Your task to perform on an android device: Clear the cart on bestbuy.com. Search for "razer blade" on bestbuy.com, select the first entry, add it to the cart, then select checkout. Image 0: 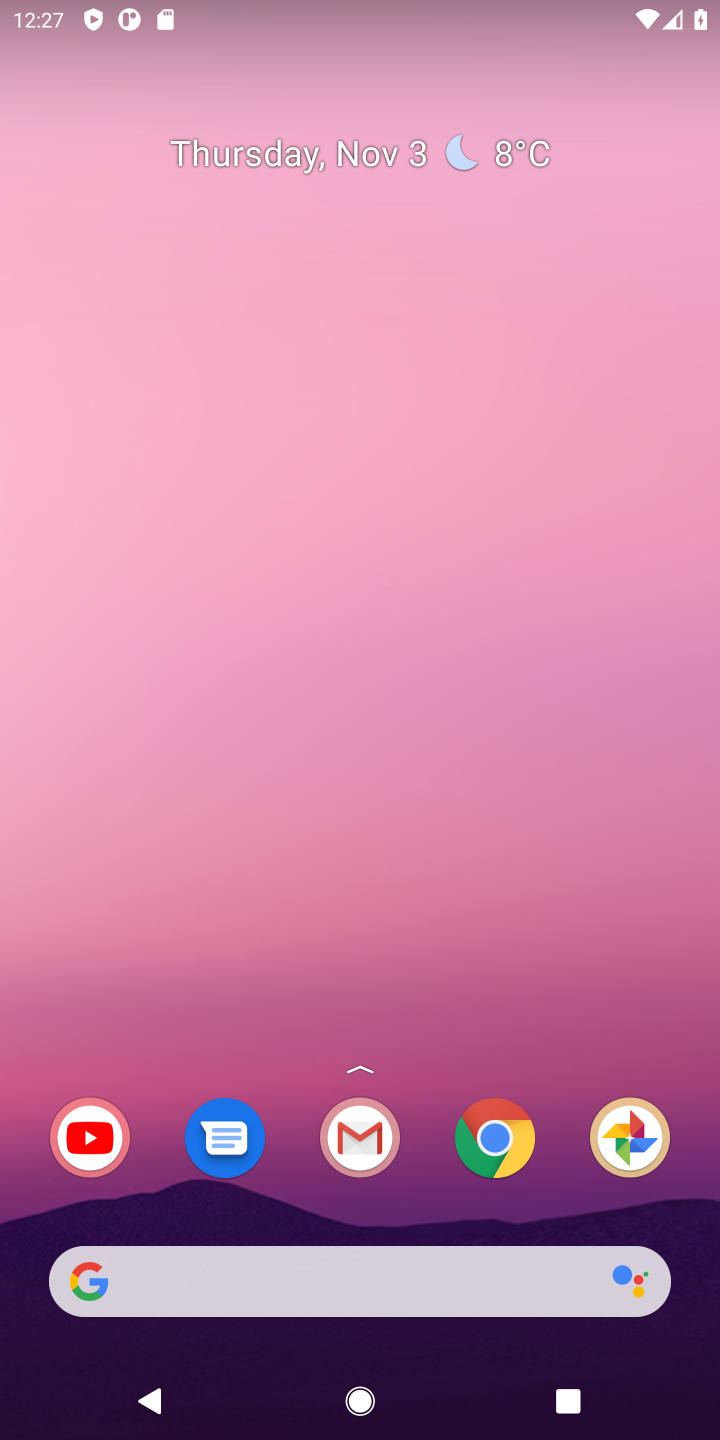
Step 0: click (469, 1153)
Your task to perform on an android device: Clear the cart on bestbuy.com. Search for "razer blade" on bestbuy.com, select the first entry, add it to the cart, then select checkout. Image 1: 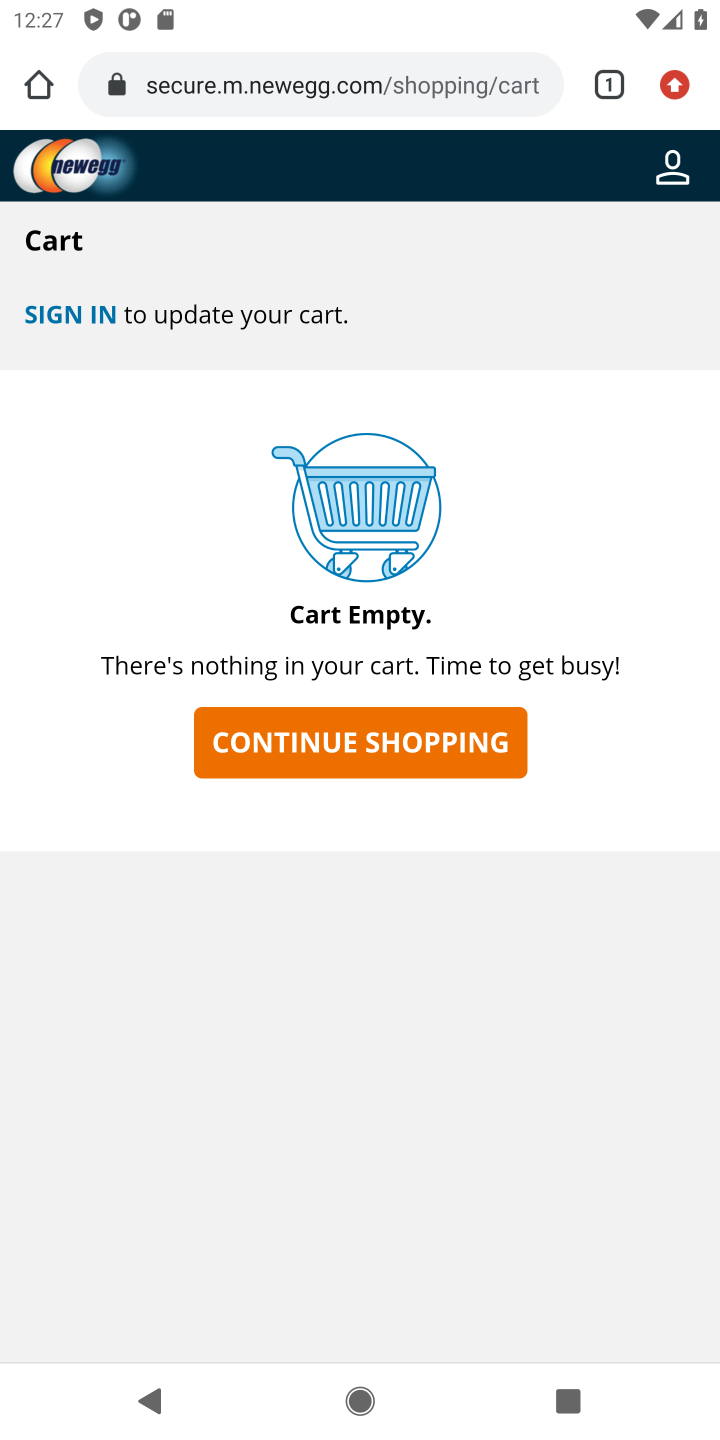
Step 1: click (325, 73)
Your task to perform on an android device: Clear the cart on bestbuy.com. Search for "razer blade" on bestbuy.com, select the first entry, add it to the cart, then select checkout. Image 2: 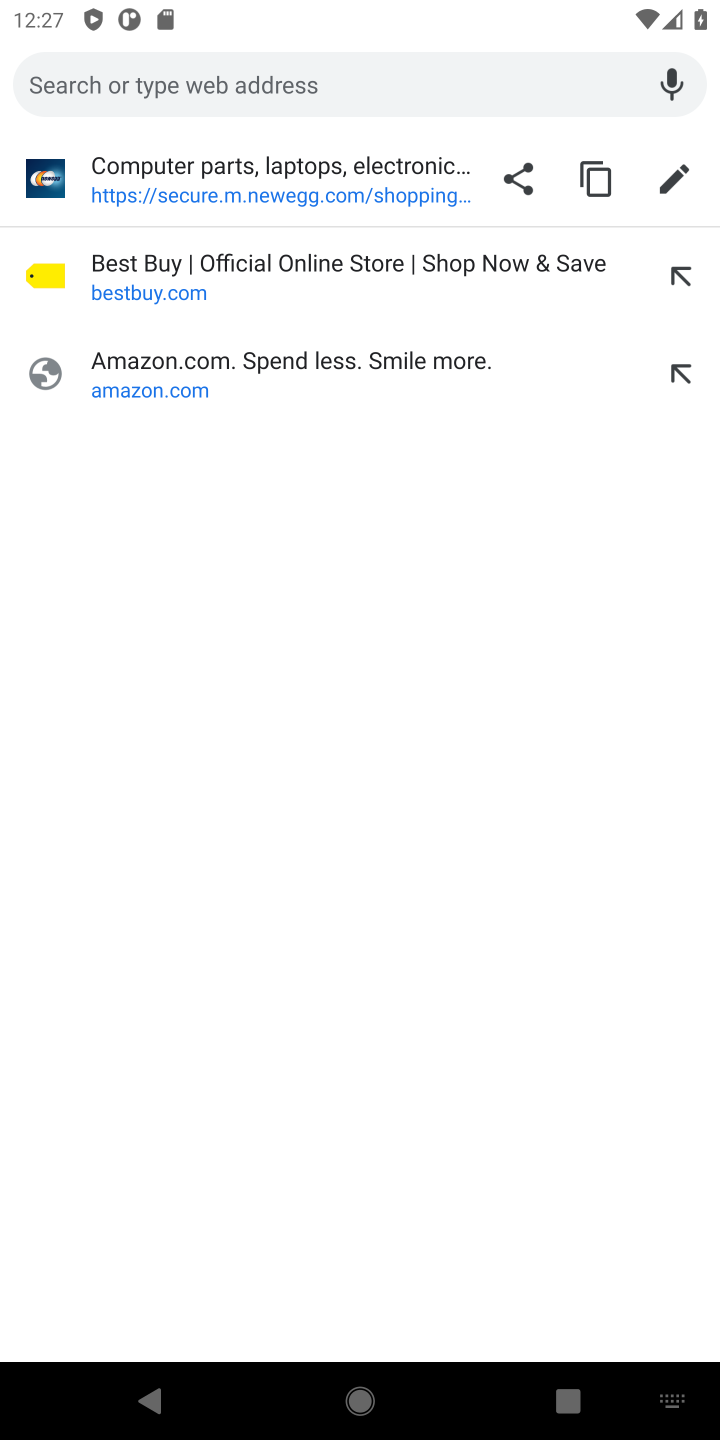
Step 2: click (152, 301)
Your task to perform on an android device: Clear the cart on bestbuy.com. Search for "razer blade" on bestbuy.com, select the first entry, add it to the cart, then select checkout. Image 3: 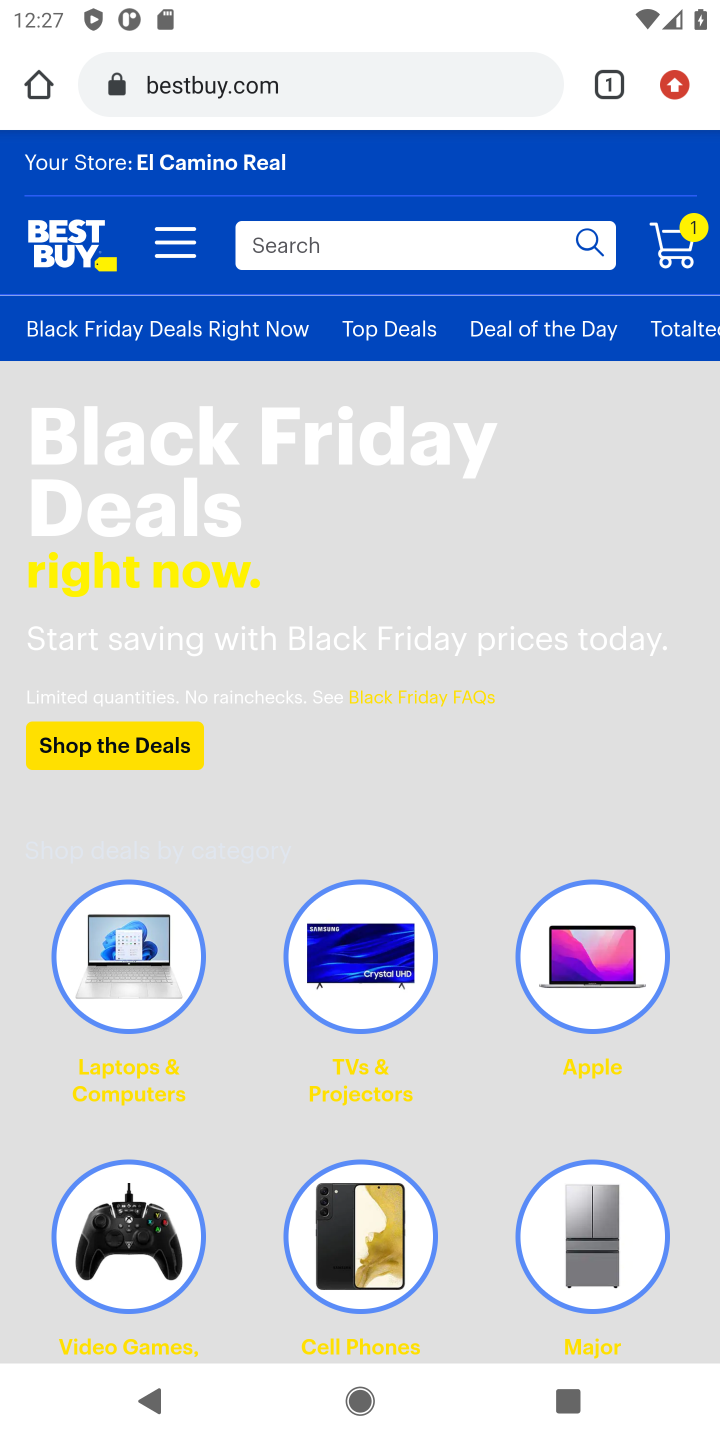
Step 3: click (688, 246)
Your task to perform on an android device: Clear the cart on bestbuy.com. Search for "razer blade" on bestbuy.com, select the first entry, add it to the cart, then select checkout. Image 4: 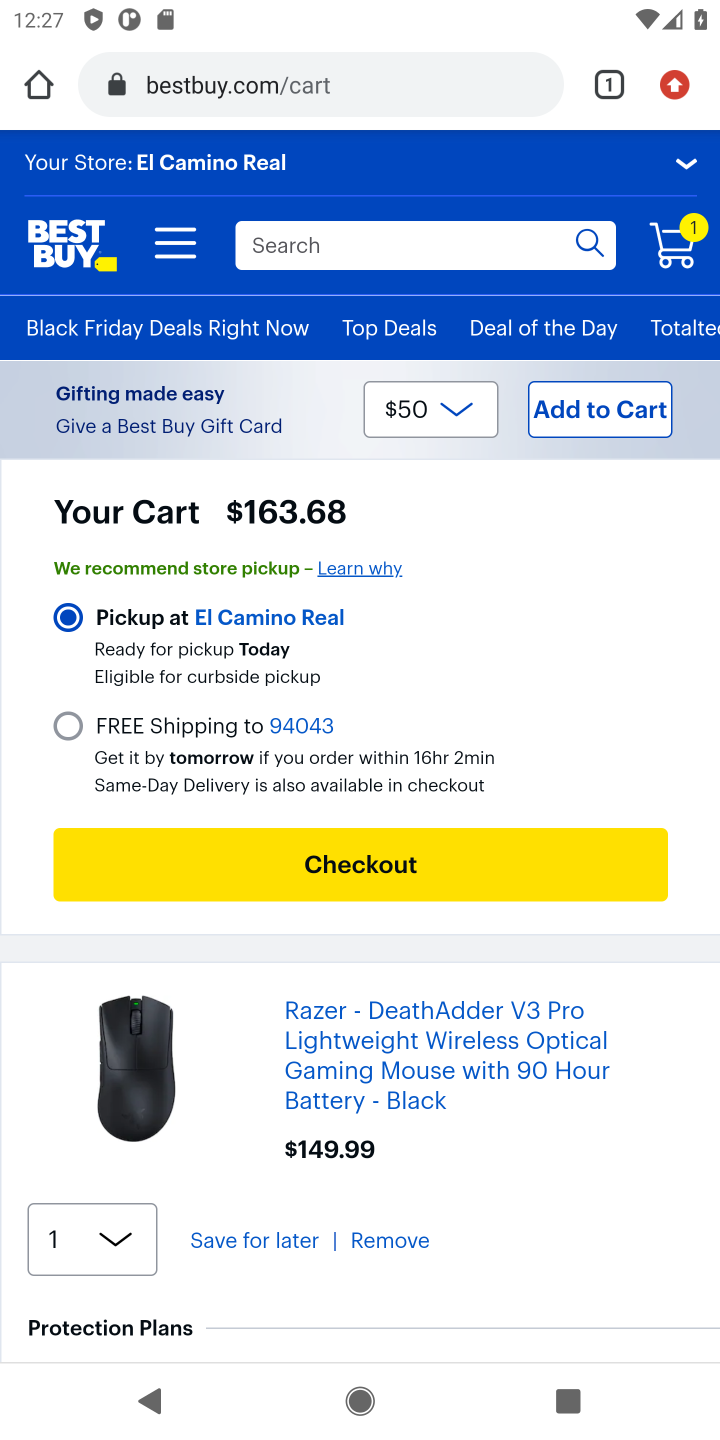
Step 4: click (383, 1234)
Your task to perform on an android device: Clear the cart on bestbuy.com. Search for "razer blade" on bestbuy.com, select the first entry, add it to the cart, then select checkout. Image 5: 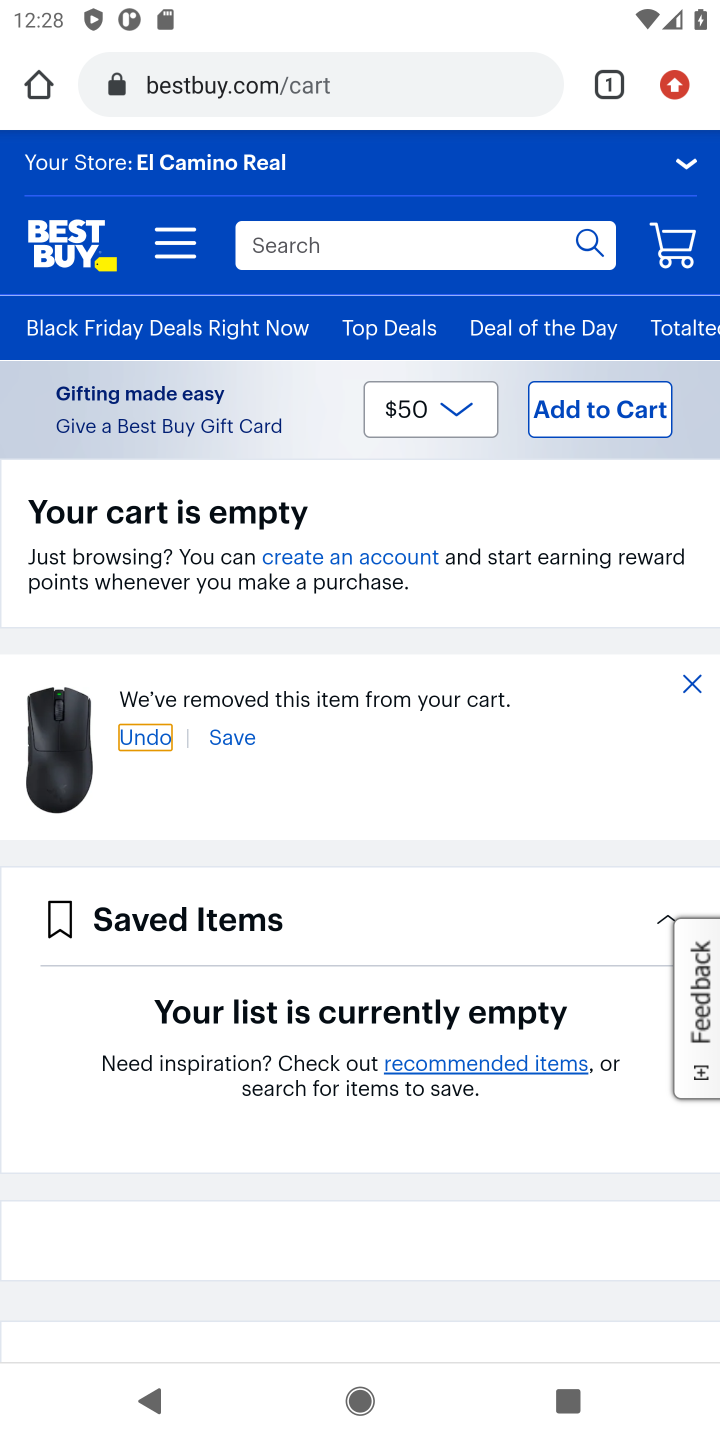
Step 5: click (312, 262)
Your task to perform on an android device: Clear the cart on bestbuy.com. Search for "razer blade" on bestbuy.com, select the first entry, add it to the cart, then select checkout. Image 6: 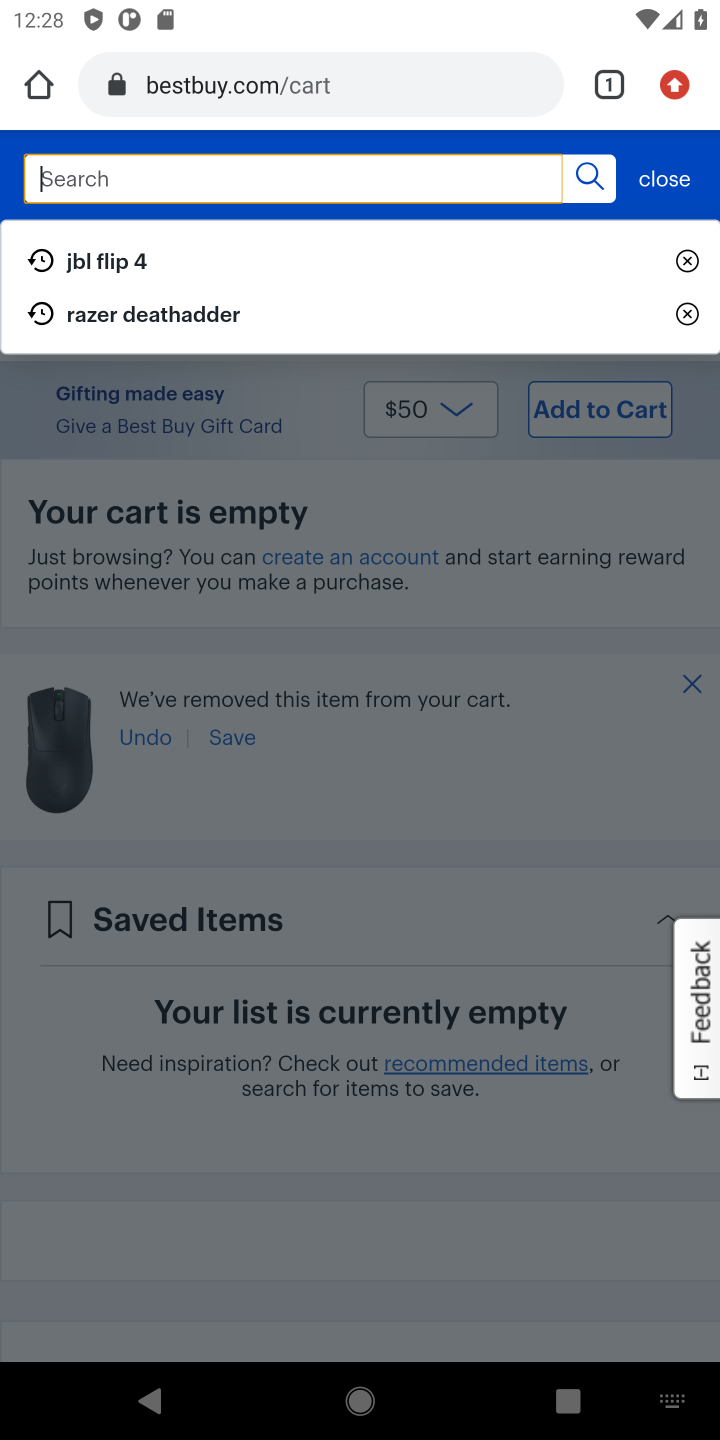
Step 6: type "razer blade"
Your task to perform on an android device: Clear the cart on bestbuy.com. Search for "razer blade" on bestbuy.com, select the first entry, add it to the cart, then select checkout. Image 7: 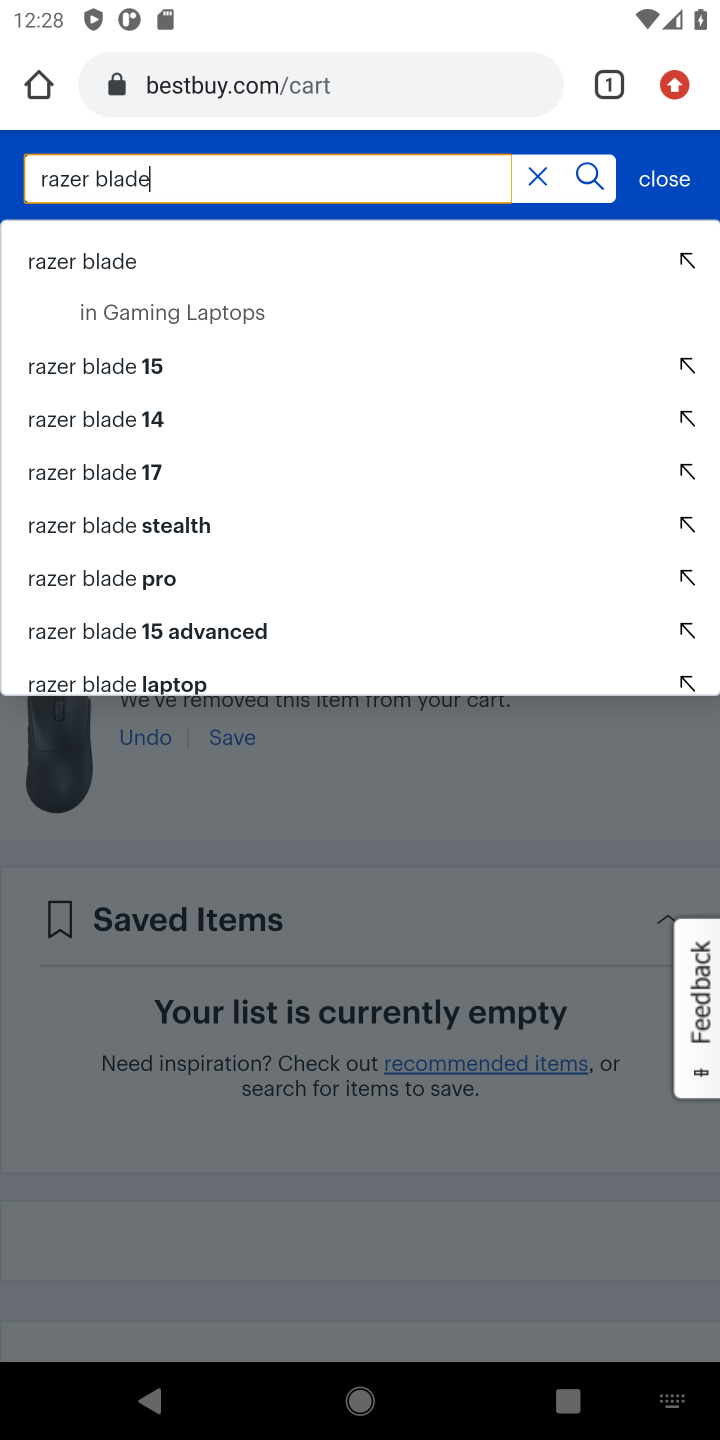
Step 7: click (66, 255)
Your task to perform on an android device: Clear the cart on bestbuy.com. Search for "razer blade" on bestbuy.com, select the first entry, add it to the cart, then select checkout. Image 8: 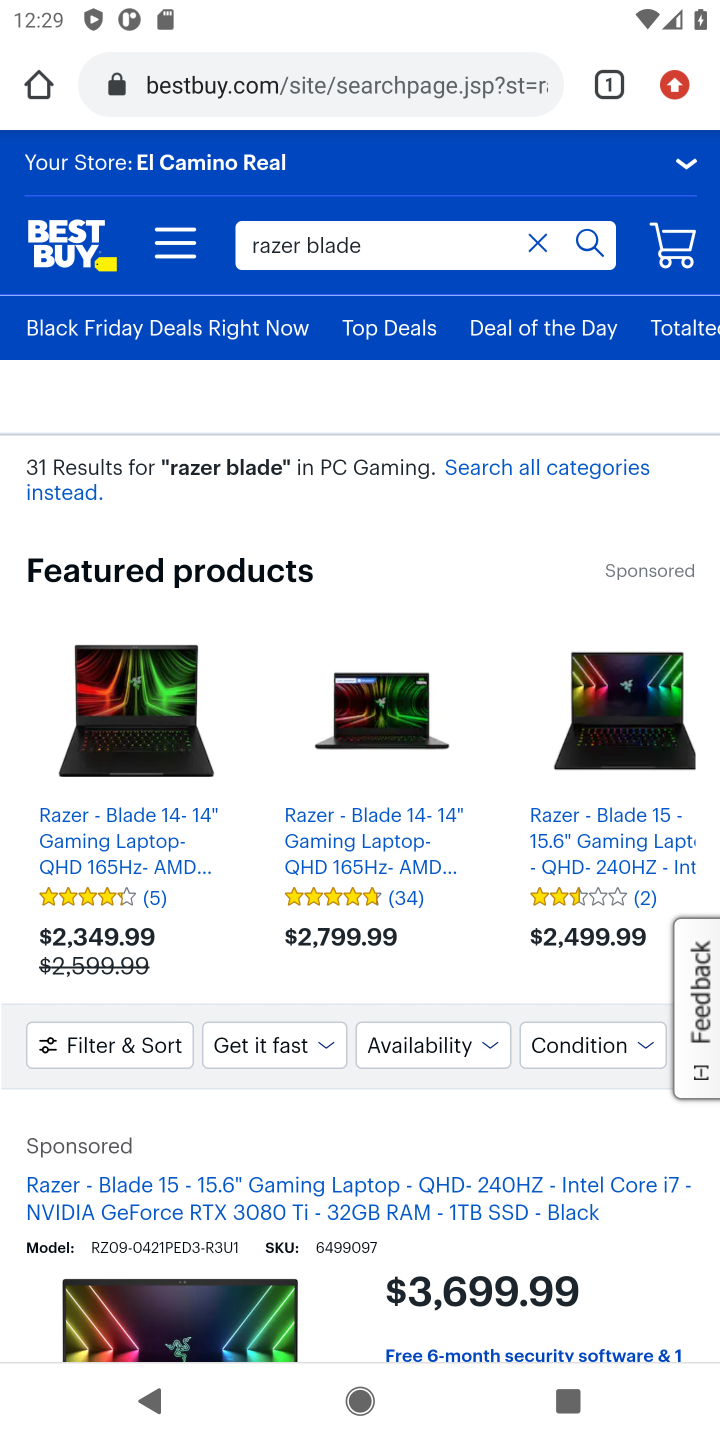
Step 8: drag from (378, 1128) to (434, 360)
Your task to perform on an android device: Clear the cart on bestbuy.com. Search for "razer blade" on bestbuy.com, select the first entry, add it to the cart, then select checkout. Image 9: 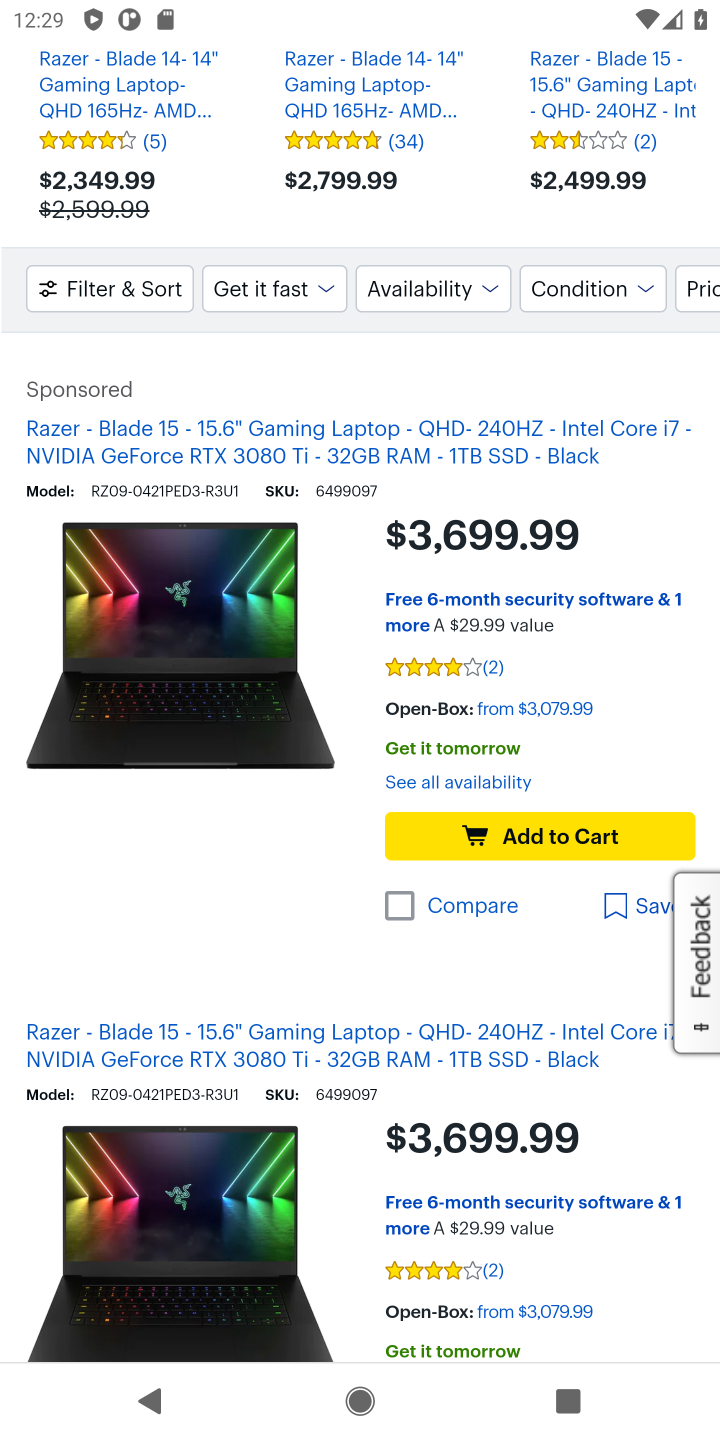
Step 9: click (483, 842)
Your task to perform on an android device: Clear the cart on bestbuy.com. Search for "razer blade" on bestbuy.com, select the first entry, add it to the cart, then select checkout. Image 10: 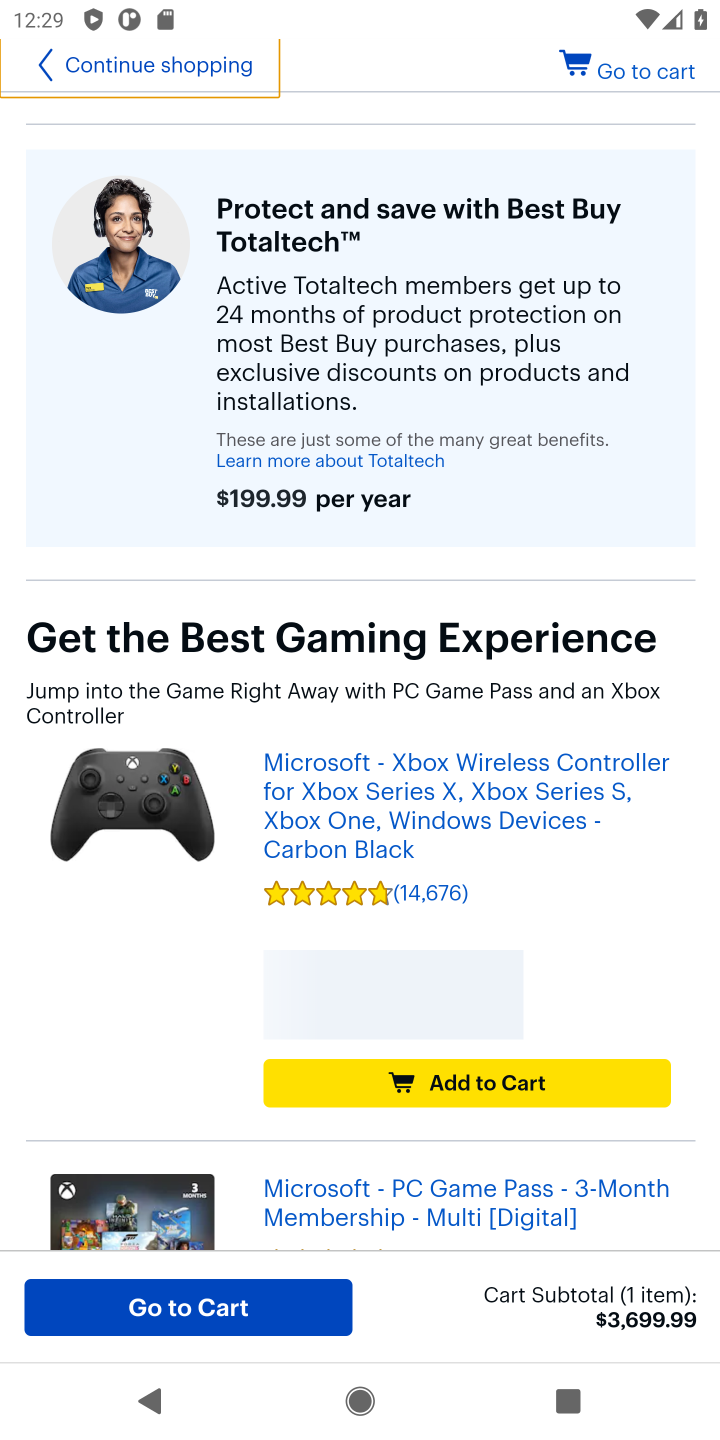
Step 10: click (259, 1286)
Your task to perform on an android device: Clear the cart on bestbuy.com. Search for "razer blade" on bestbuy.com, select the first entry, add it to the cart, then select checkout. Image 11: 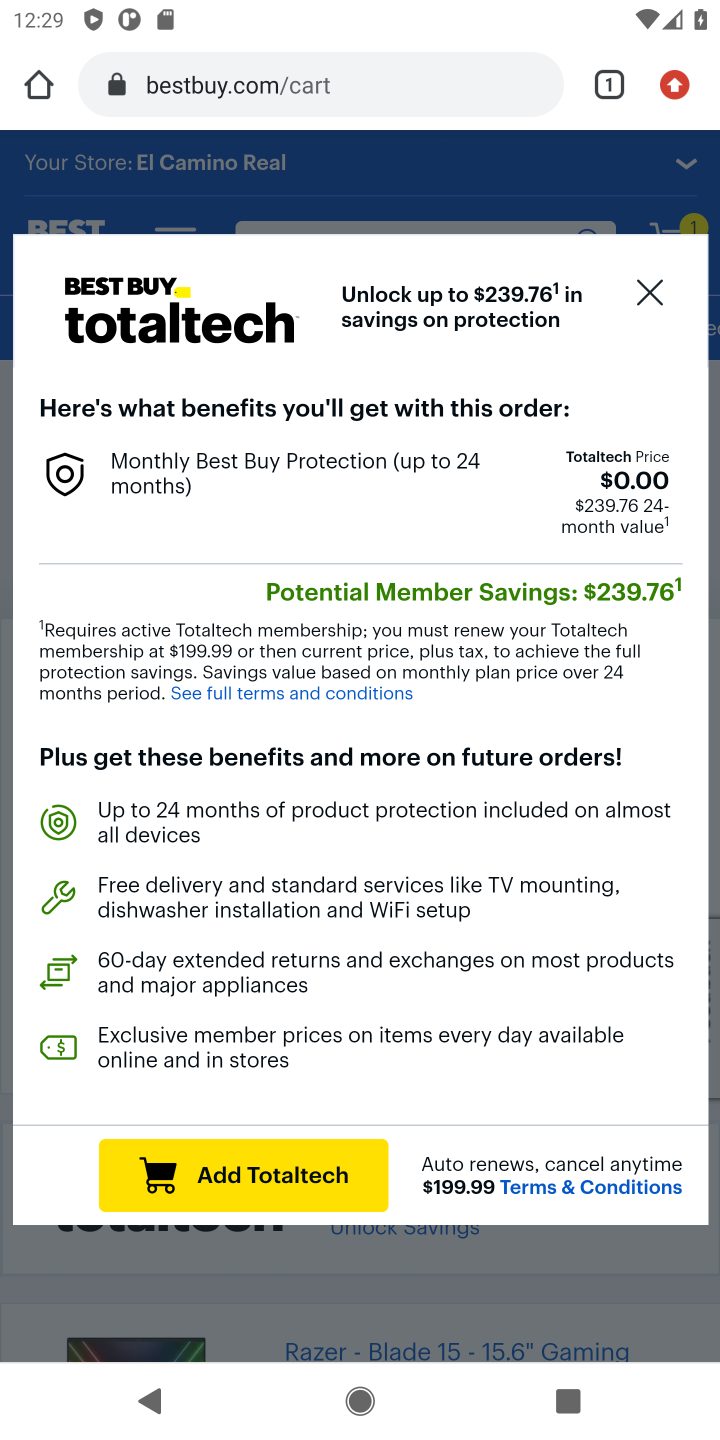
Step 11: click (654, 287)
Your task to perform on an android device: Clear the cart on bestbuy.com. Search for "razer blade" on bestbuy.com, select the first entry, add it to the cart, then select checkout. Image 12: 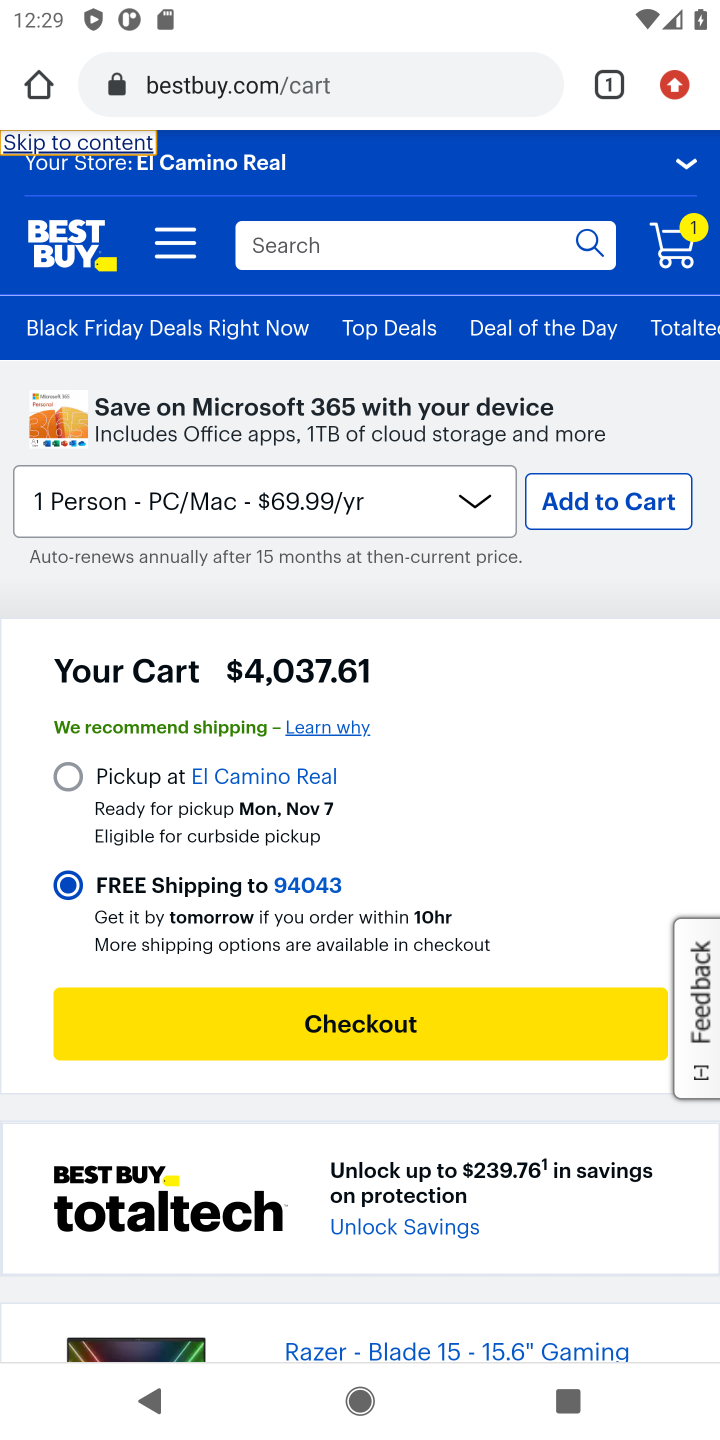
Step 12: click (377, 1028)
Your task to perform on an android device: Clear the cart on bestbuy.com. Search for "razer blade" on bestbuy.com, select the first entry, add it to the cart, then select checkout. Image 13: 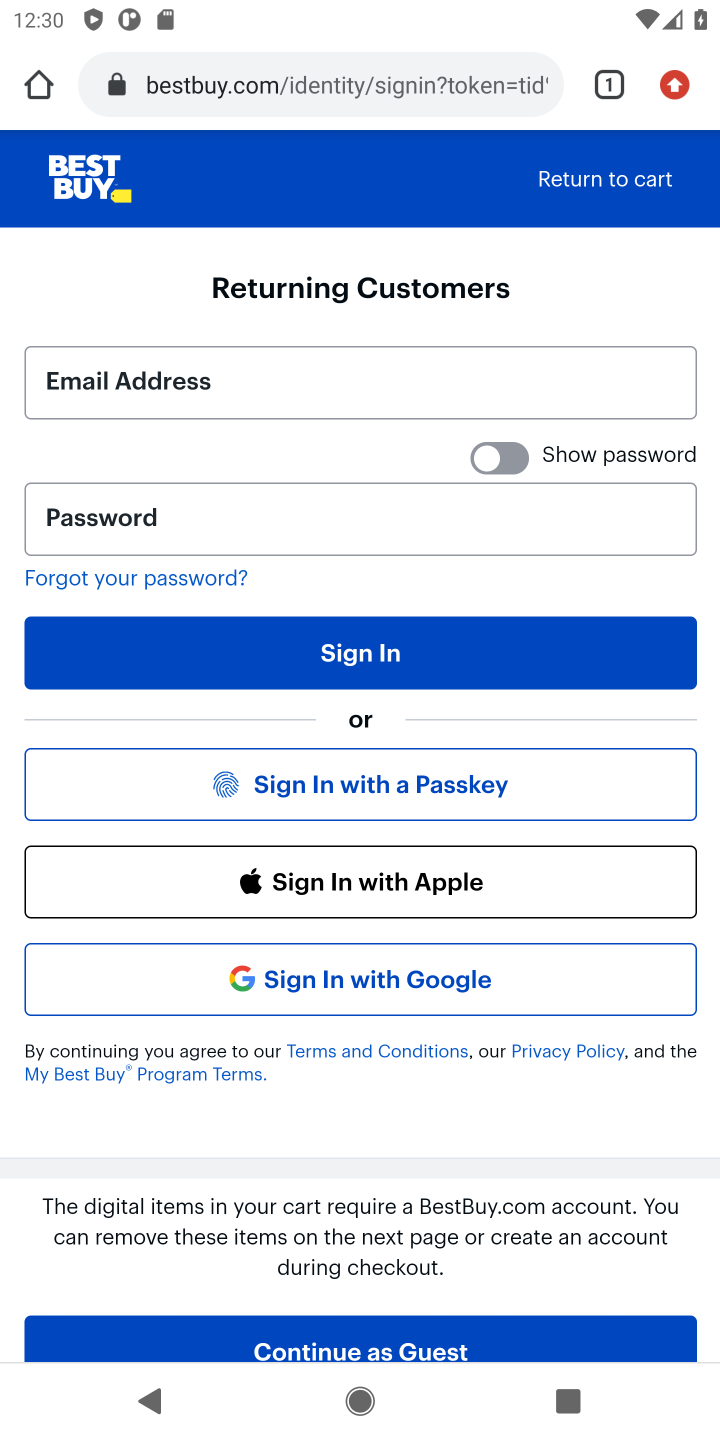
Step 13: task complete